Your task to perform on an android device: Search for seafood restaurants on Google Maps Image 0: 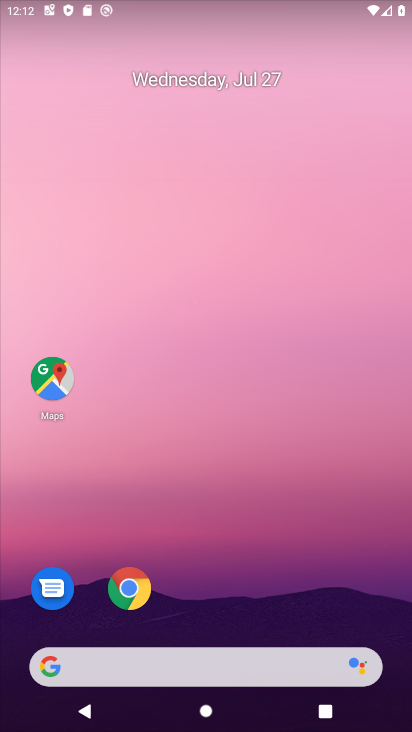
Step 0: click (54, 375)
Your task to perform on an android device: Search for seafood restaurants on Google Maps Image 1: 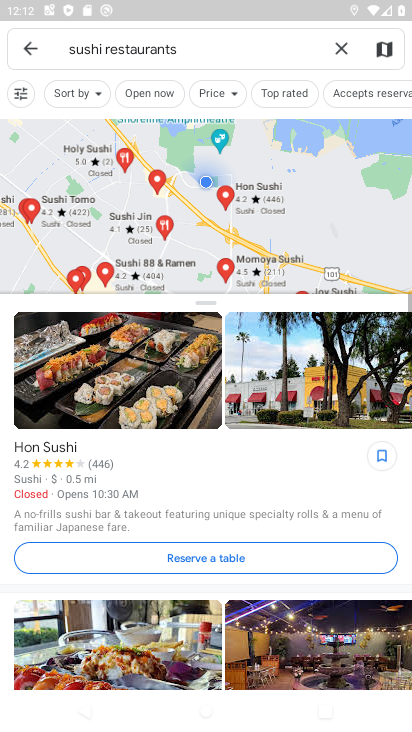
Step 1: click (359, 45)
Your task to perform on an android device: Search for seafood restaurants on Google Maps Image 2: 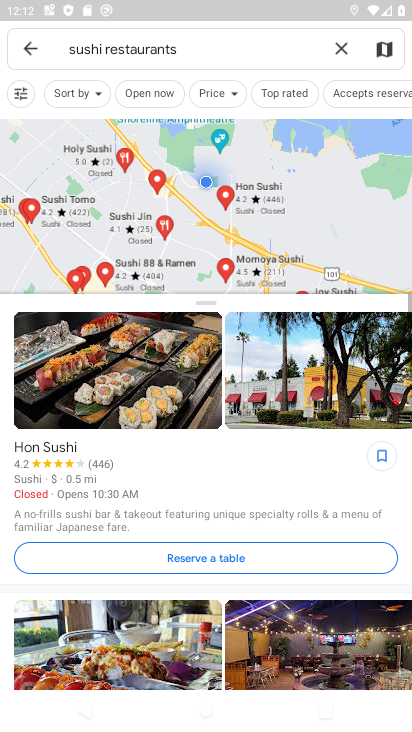
Step 2: click (336, 48)
Your task to perform on an android device: Search for seafood restaurants on Google Maps Image 3: 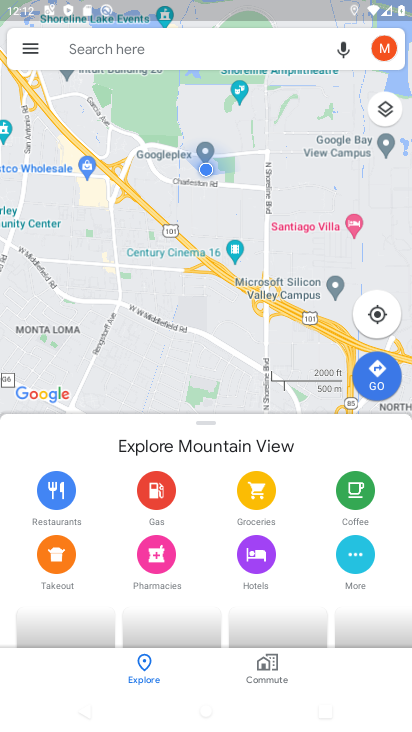
Step 3: click (71, 45)
Your task to perform on an android device: Search for seafood restaurants on Google Maps Image 4: 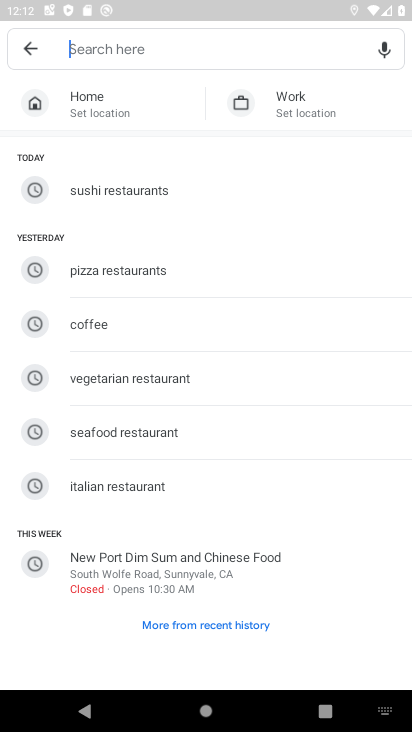
Step 4: click (117, 434)
Your task to perform on an android device: Search for seafood restaurants on Google Maps Image 5: 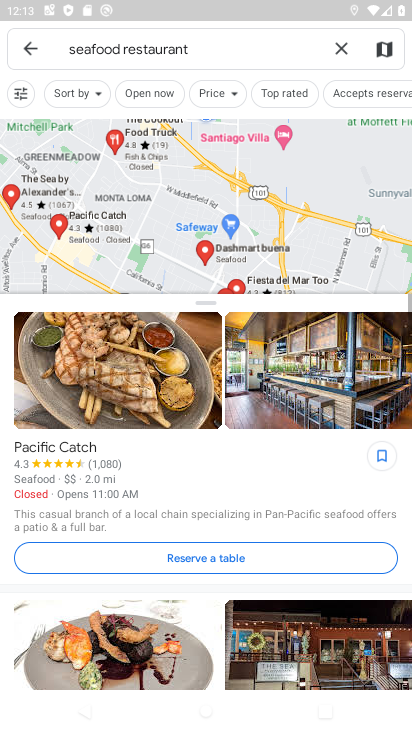
Step 5: task complete